Your task to perform on an android device: star an email in the gmail app Image 0: 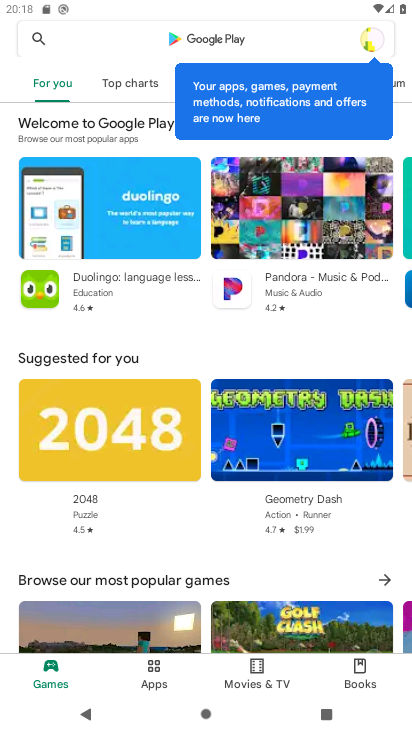
Step 0: press home button
Your task to perform on an android device: star an email in the gmail app Image 1: 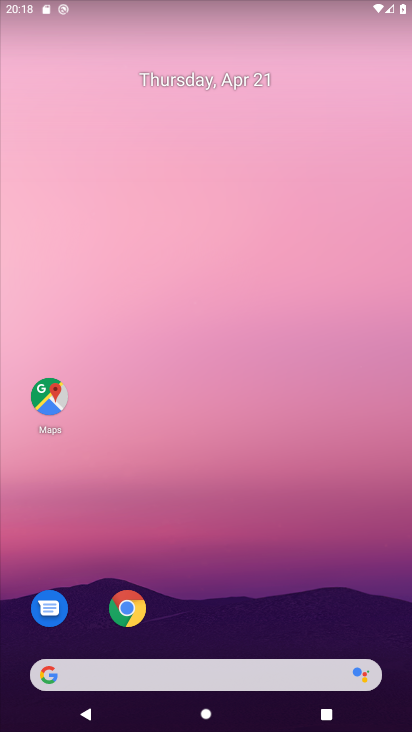
Step 1: drag from (220, 630) to (207, 98)
Your task to perform on an android device: star an email in the gmail app Image 2: 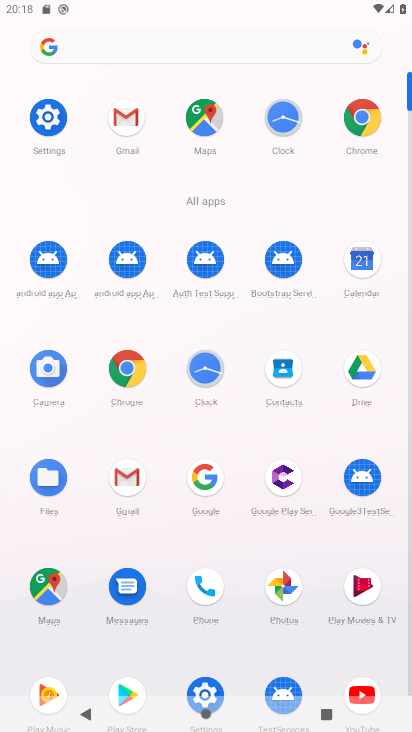
Step 2: click (136, 136)
Your task to perform on an android device: star an email in the gmail app Image 3: 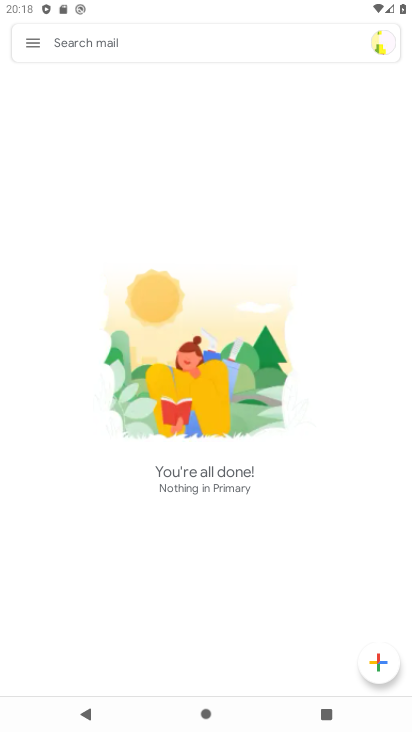
Step 3: click (34, 55)
Your task to perform on an android device: star an email in the gmail app Image 4: 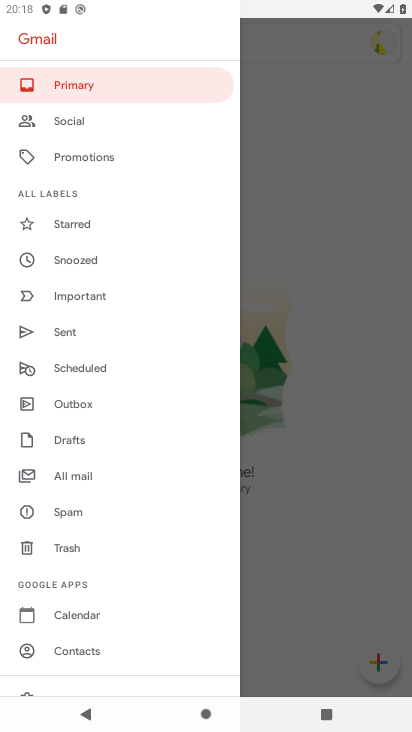
Step 4: click (72, 481)
Your task to perform on an android device: star an email in the gmail app Image 5: 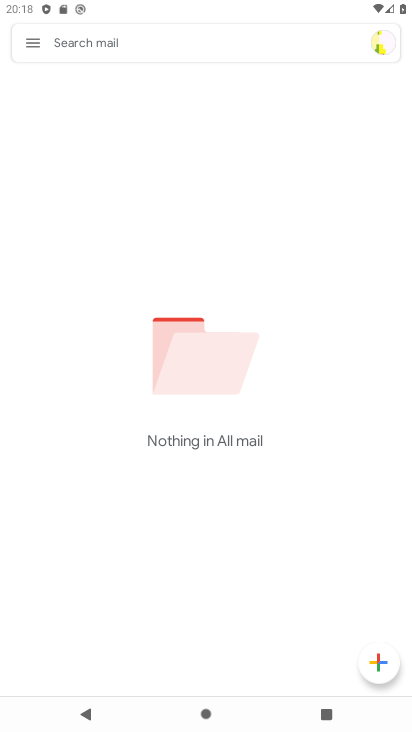
Step 5: task complete